Your task to perform on an android device: toggle pop-ups in chrome Image 0: 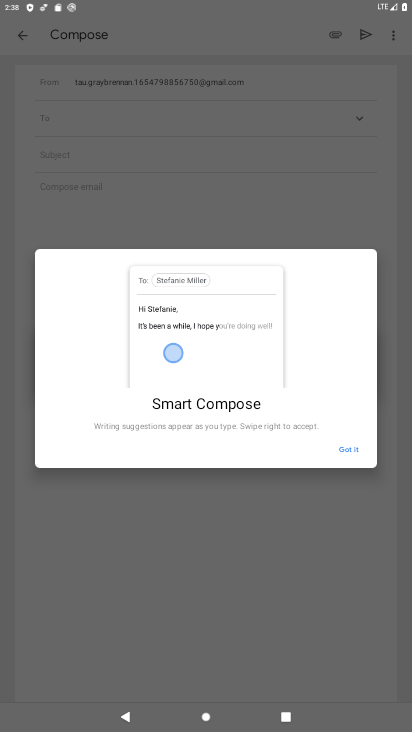
Step 0: press home button
Your task to perform on an android device: toggle pop-ups in chrome Image 1: 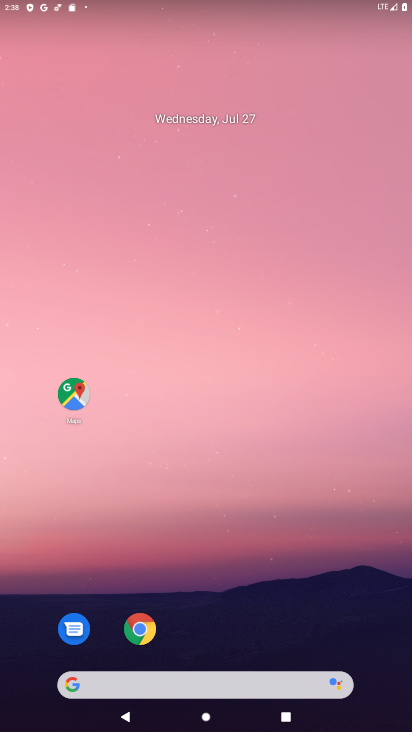
Step 1: click (135, 633)
Your task to perform on an android device: toggle pop-ups in chrome Image 2: 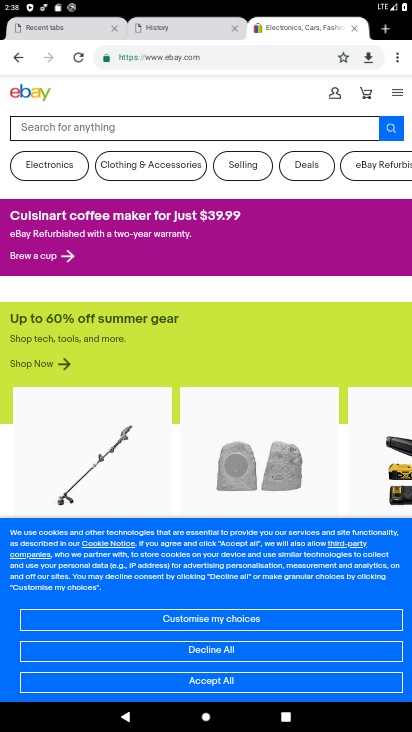
Step 2: click (406, 64)
Your task to perform on an android device: toggle pop-ups in chrome Image 3: 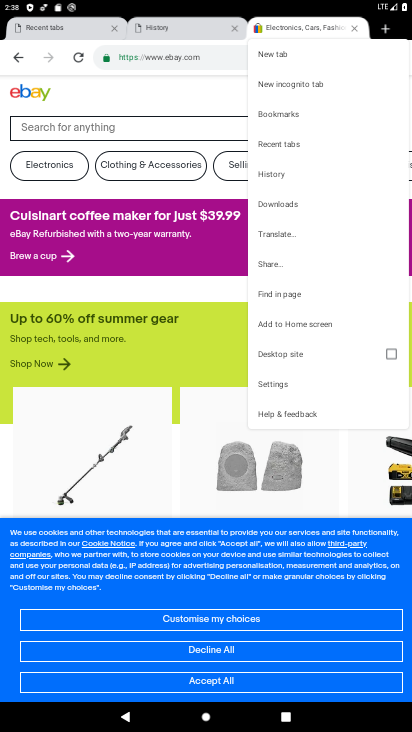
Step 3: click (302, 381)
Your task to perform on an android device: toggle pop-ups in chrome Image 4: 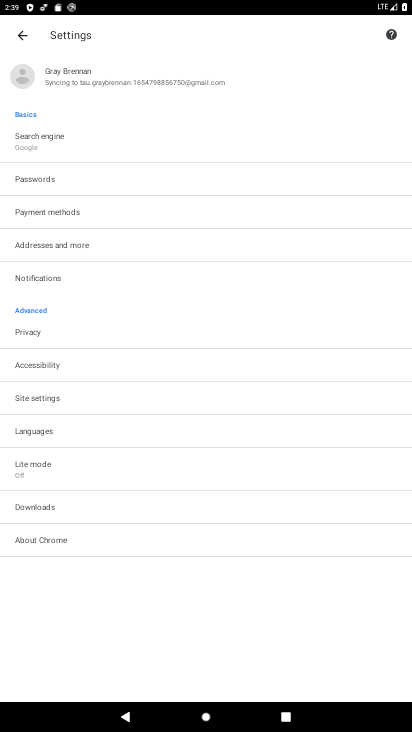
Step 4: click (114, 393)
Your task to perform on an android device: toggle pop-ups in chrome Image 5: 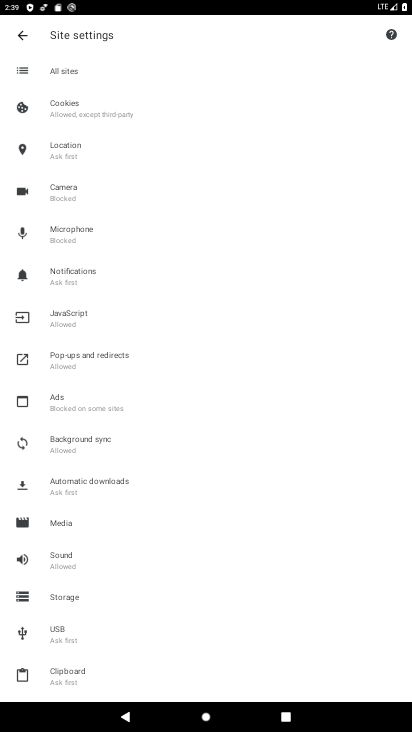
Step 5: click (89, 357)
Your task to perform on an android device: toggle pop-ups in chrome Image 6: 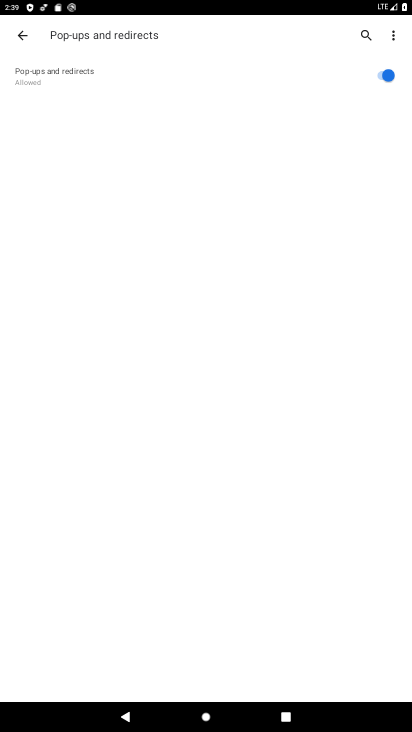
Step 6: click (372, 74)
Your task to perform on an android device: toggle pop-ups in chrome Image 7: 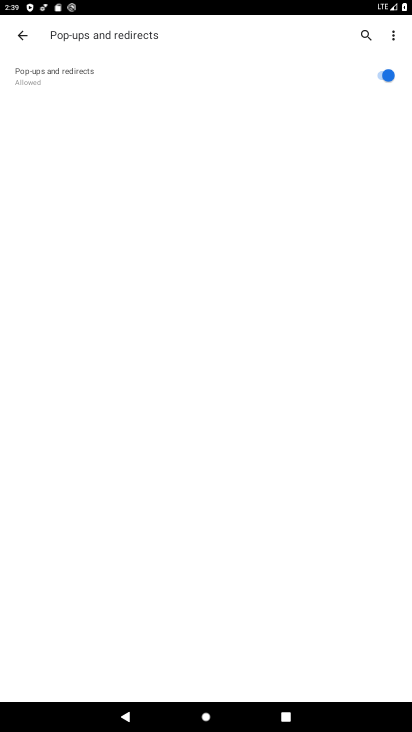
Step 7: click (372, 74)
Your task to perform on an android device: toggle pop-ups in chrome Image 8: 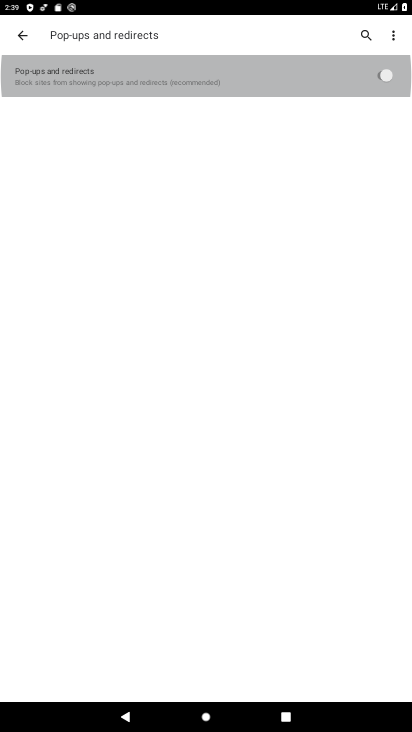
Step 8: click (372, 74)
Your task to perform on an android device: toggle pop-ups in chrome Image 9: 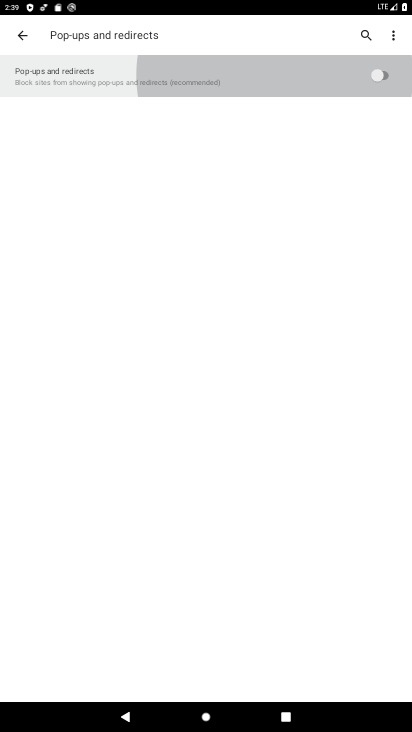
Step 9: click (372, 74)
Your task to perform on an android device: toggle pop-ups in chrome Image 10: 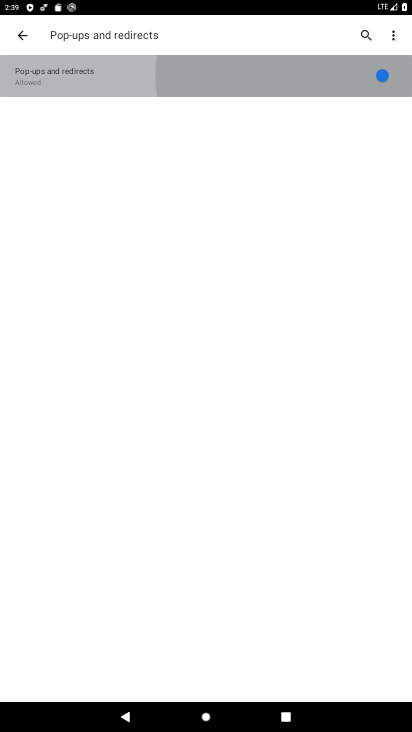
Step 10: click (372, 74)
Your task to perform on an android device: toggle pop-ups in chrome Image 11: 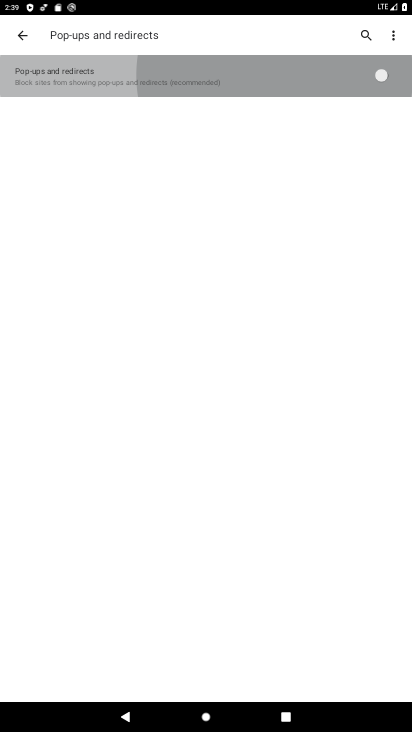
Step 11: click (372, 74)
Your task to perform on an android device: toggle pop-ups in chrome Image 12: 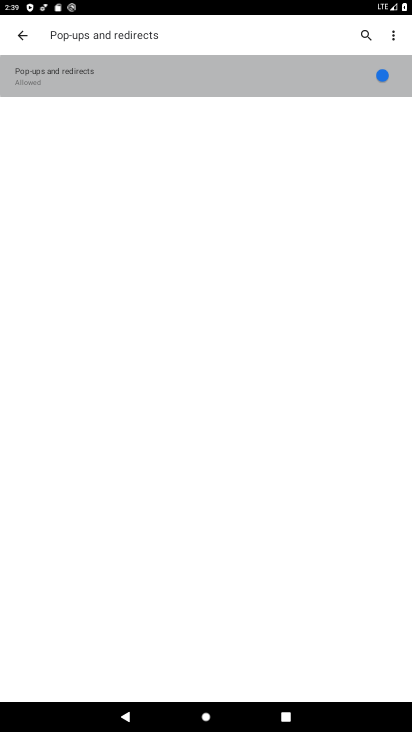
Step 12: click (372, 74)
Your task to perform on an android device: toggle pop-ups in chrome Image 13: 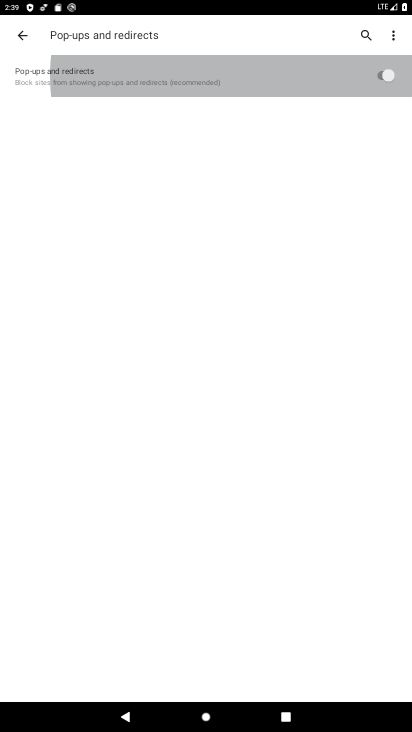
Step 13: click (372, 74)
Your task to perform on an android device: toggle pop-ups in chrome Image 14: 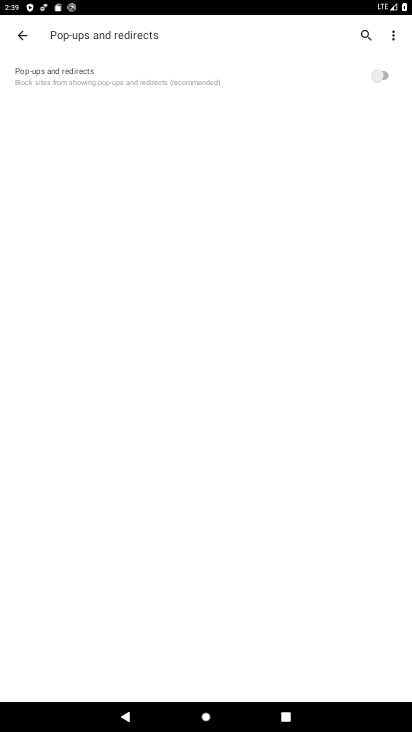
Step 14: task complete